Your task to perform on an android device: toggle data saver in the chrome app Image 0: 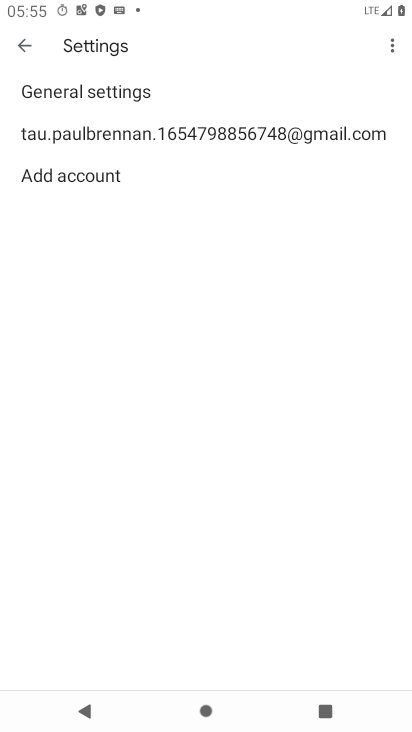
Step 0: press home button
Your task to perform on an android device: toggle data saver in the chrome app Image 1: 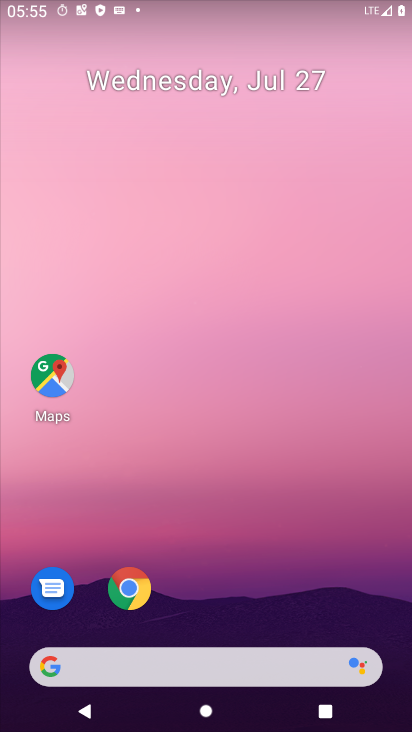
Step 1: drag from (182, 644) to (280, 33)
Your task to perform on an android device: toggle data saver in the chrome app Image 2: 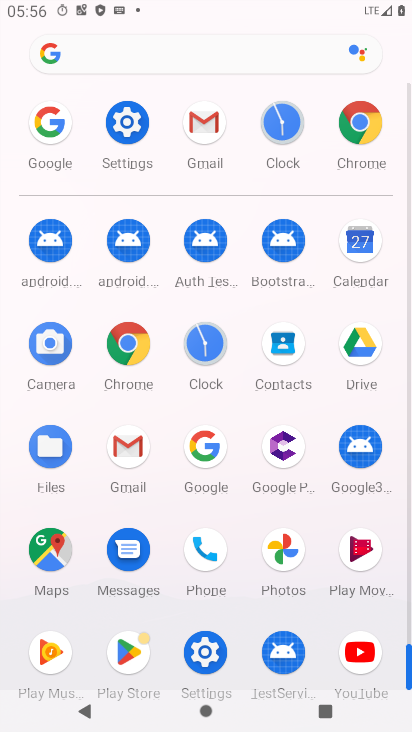
Step 2: click (131, 342)
Your task to perform on an android device: toggle data saver in the chrome app Image 3: 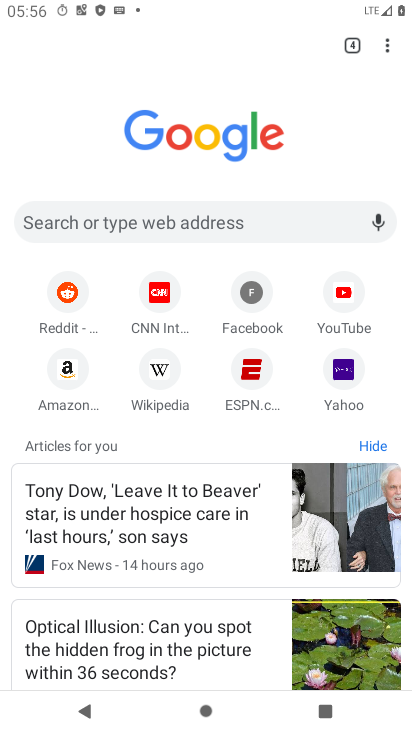
Step 3: click (387, 46)
Your task to perform on an android device: toggle data saver in the chrome app Image 4: 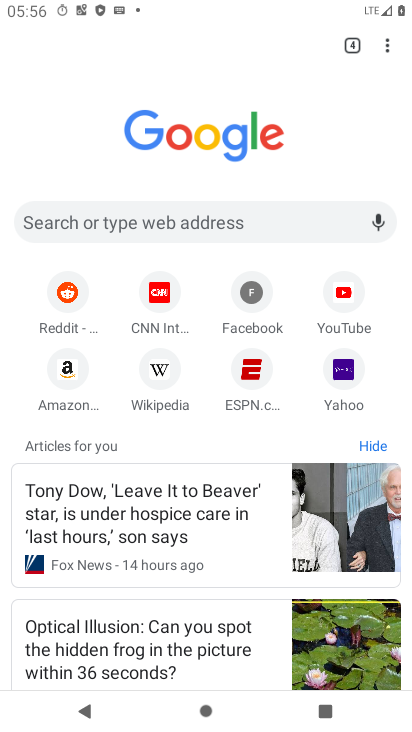
Step 4: drag from (389, 45) to (249, 389)
Your task to perform on an android device: toggle data saver in the chrome app Image 5: 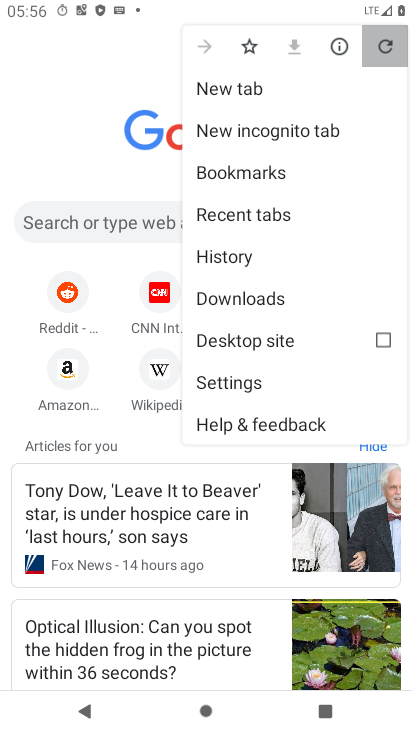
Step 5: click (249, 384)
Your task to perform on an android device: toggle data saver in the chrome app Image 6: 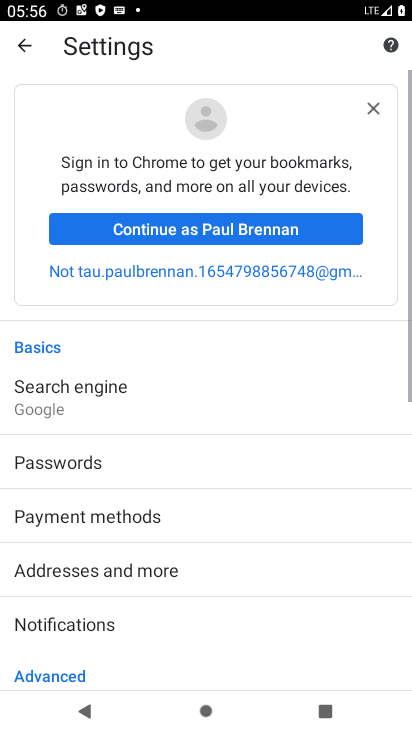
Step 6: drag from (156, 613) to (243, 234)
Your task to perform on an android device: toggle data saver in the chrome app Image 7: 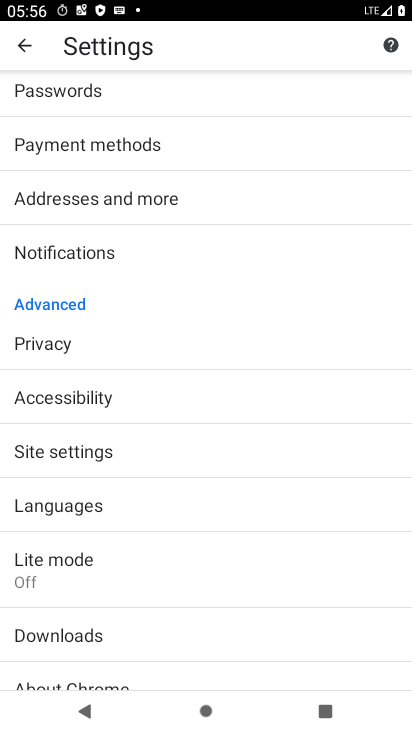
Step 7: click (138, 582)
Your task to perform on an android device: toggle data saver in the chrome app Image 8: 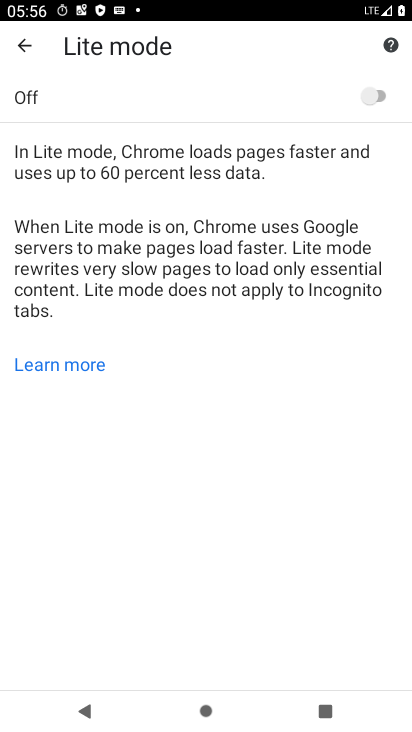
Step 8: click (379, 95)
Your task to perform on an android device: toggle data saver in the chrome app Image 9: 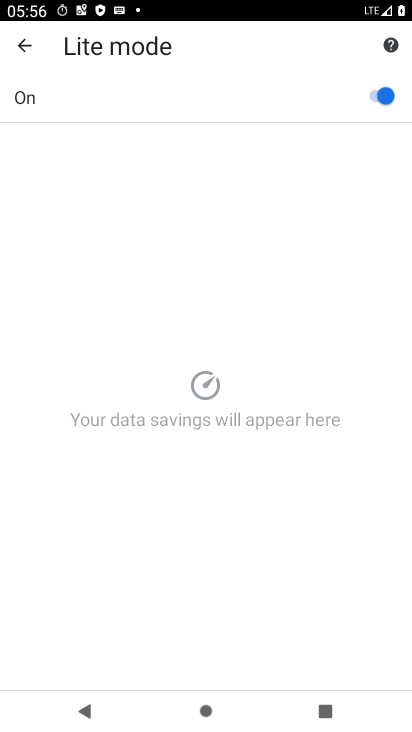
Step 9: task complete